Your task to perform on an android device: Search for vegetarian restaurants on Maps Image 0: 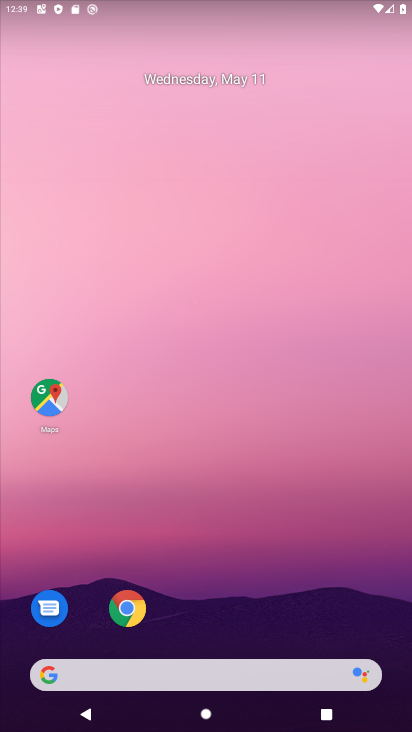
Step 0: click (58, 404)
Your task to perform on an android device: Search for vegetarian restaurants on Maps Image 1: 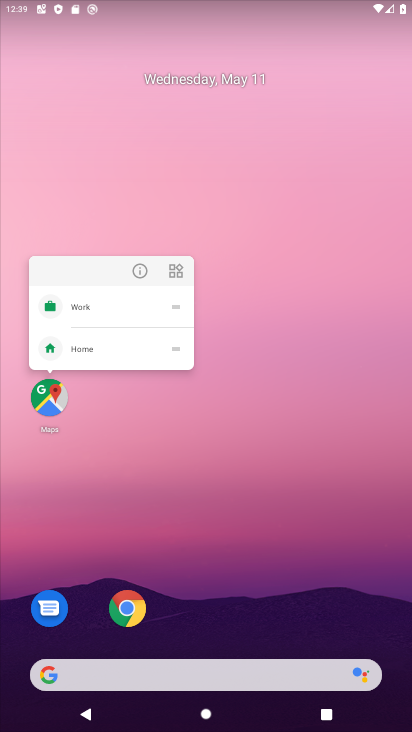
Step 1: click (50, 413)
Your task to perform on an android device: Search for vegetarian restaurants on Maps Image 2: 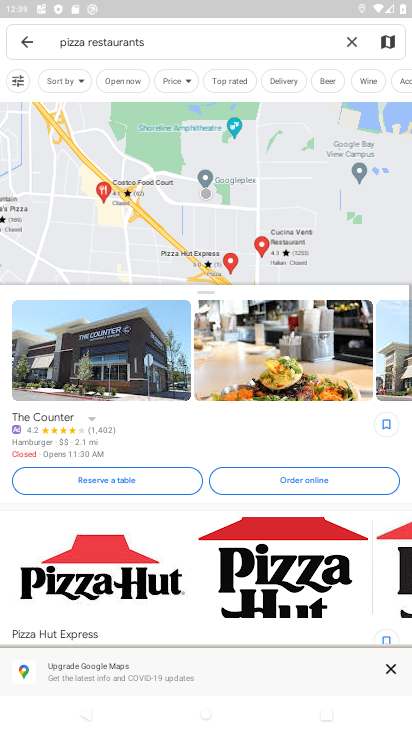
Step 2: click (354, 39)
Your task to perform on an android device: Search for vegetarian restaurants on Maps Image 3: 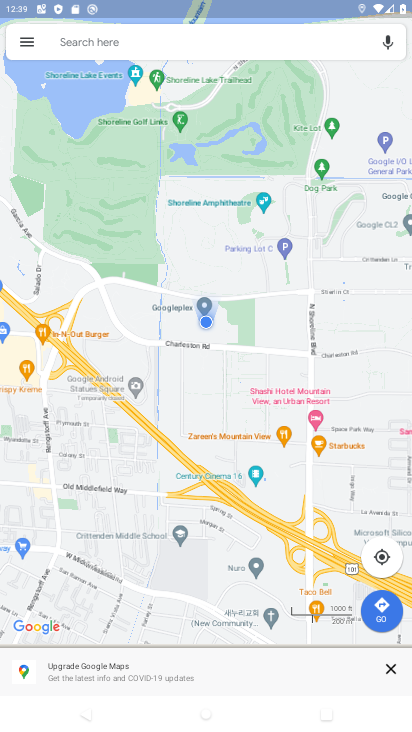
Step 3: click (287, 49)
Your task to perform on an android device: Search for vegetarian restaurants on Maps Image 4: 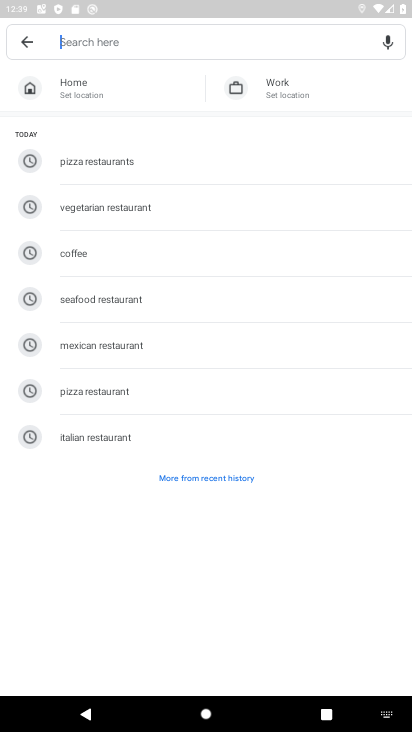
Step 4: type "Vegetarian restaurants"
Your task to perform on an android device: Search for vegetarian restaurants on Maps Image 5: 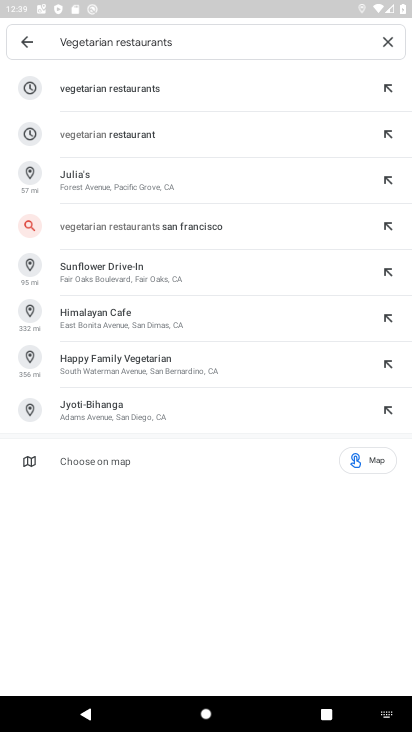
Step 5: click (211, 91)
Your task to perform on an android device: Search for vegetarian restaurants on Maps Image 6: 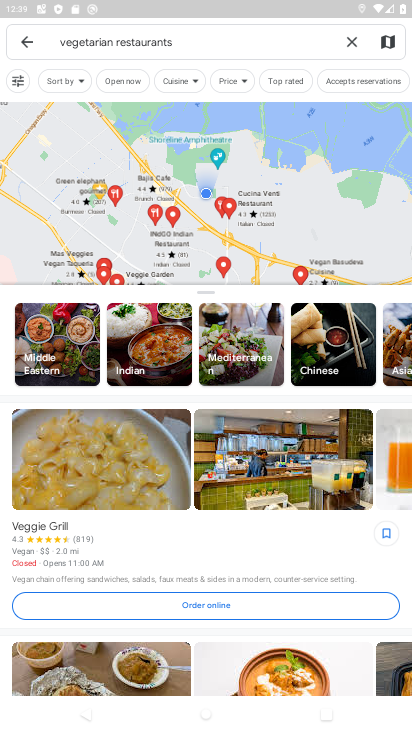
Step 6: task complete